Your task to perform on an android device: Open the calendar and show me this week's events Image 0: 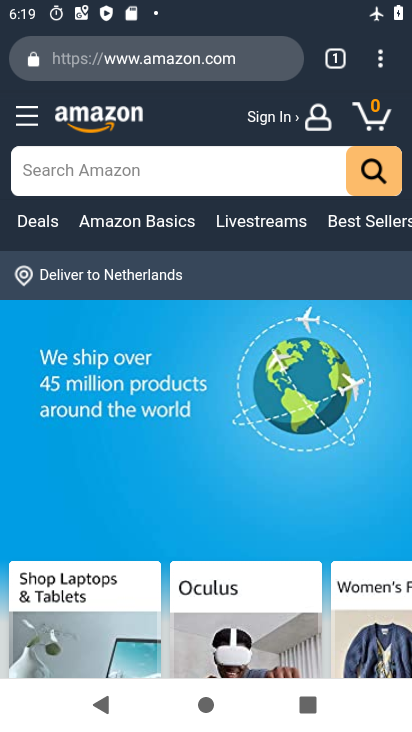
Step 0: press home button
Your task to perform on an android device: Open the calendar and show me this week's events Image 1: 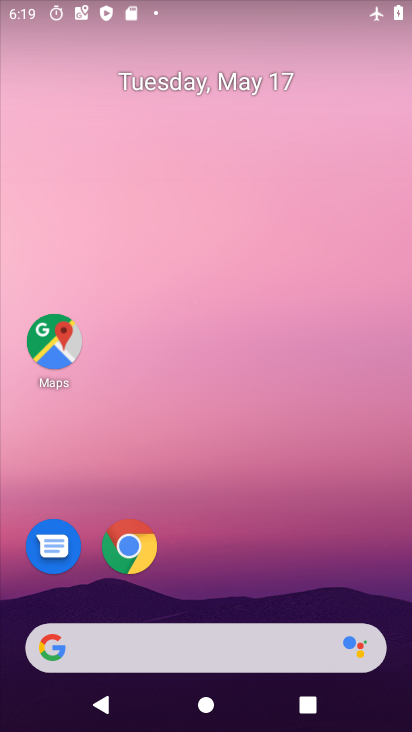
Step 1: drag from (196, 541) to (218, 228)
Your task to perform on an android device: Open the calendar and show me this week's events Image 2: 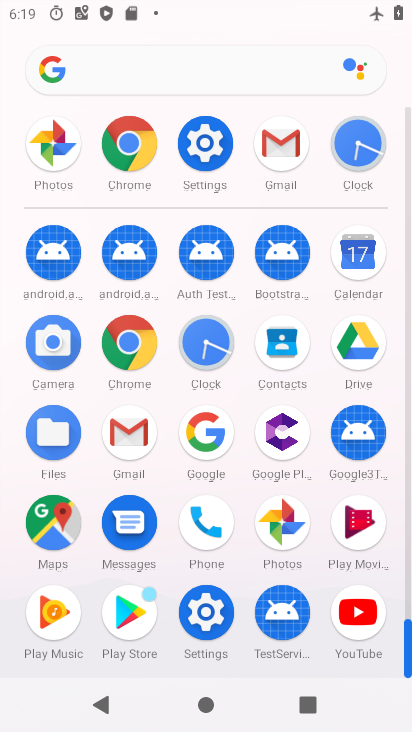
Step 2: click (348, 258)
Your task to perform on an android device: Open the calendar and show me this week's events Image 3: 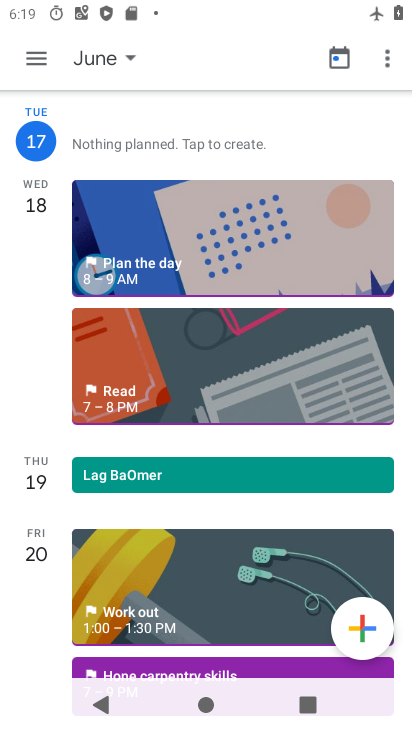
Step 3: task complete